Your task to perform on an android device: When is my next appointment? Image 0: 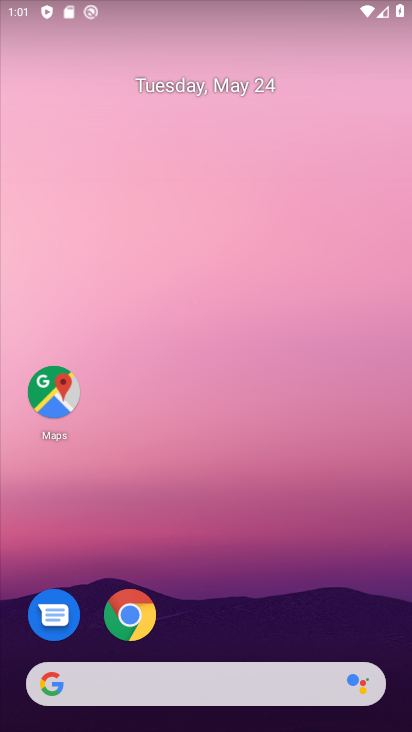
Step 0: drag from (215, 632) to (216, 98)
Your task to perform on an android device: When is my next appointment? Image 1: 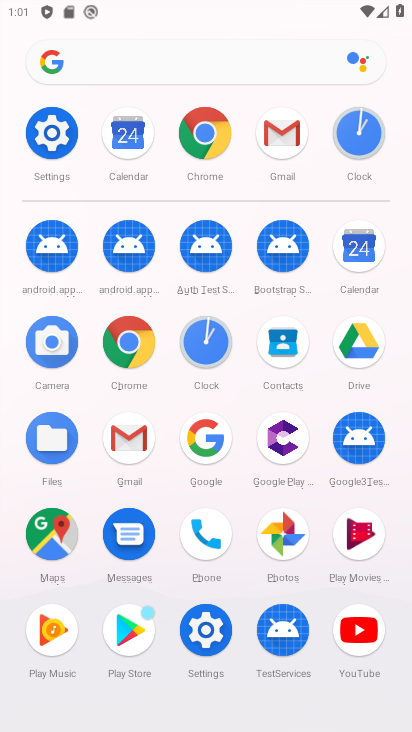
Step 1: click (357, 246)
Your task to perform on an android device: When is my next appointment? Image 2: 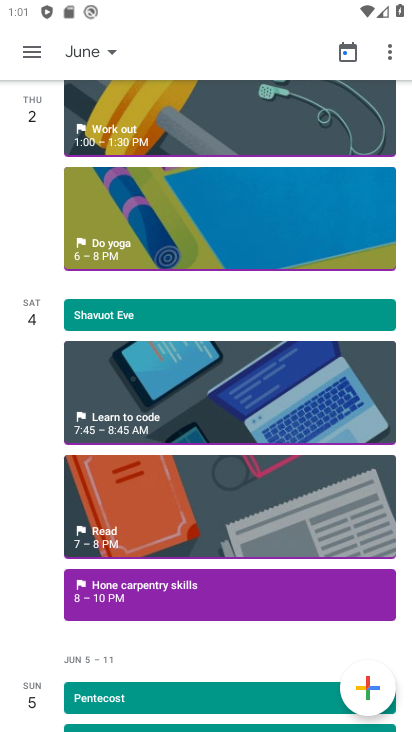
Step 2: click (32, 51)
Your task to perform on an android device: When is my next appointment? Image 3: 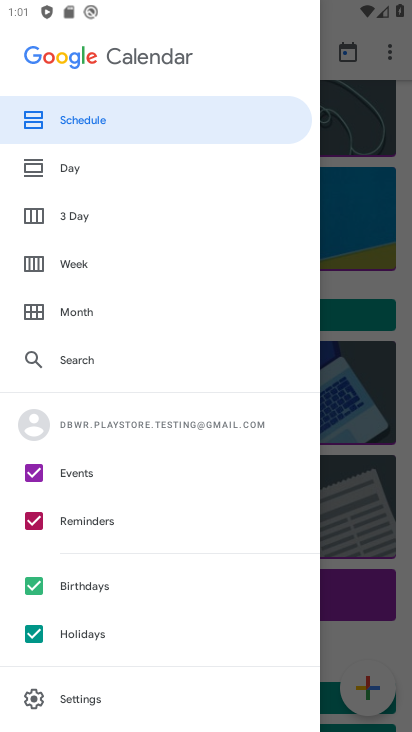
Step 3: click (95, 258)
Your task to perform on an android device: When is my next appointment? Image 4: 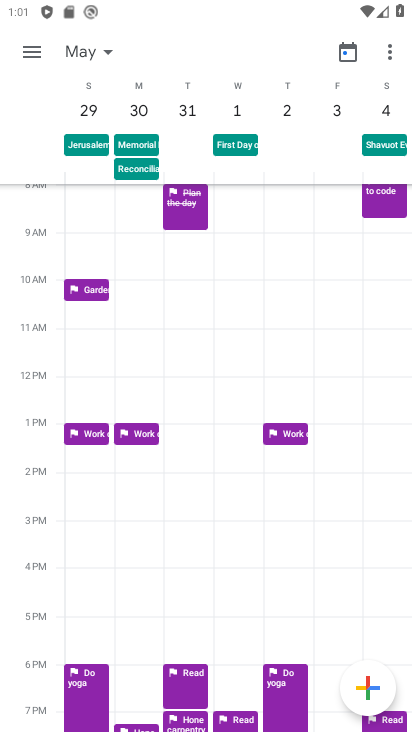
Step 4: drag from (87, 101) to (404, 105)
Your task to perform on an android device: When is my next appointment? Image 5: 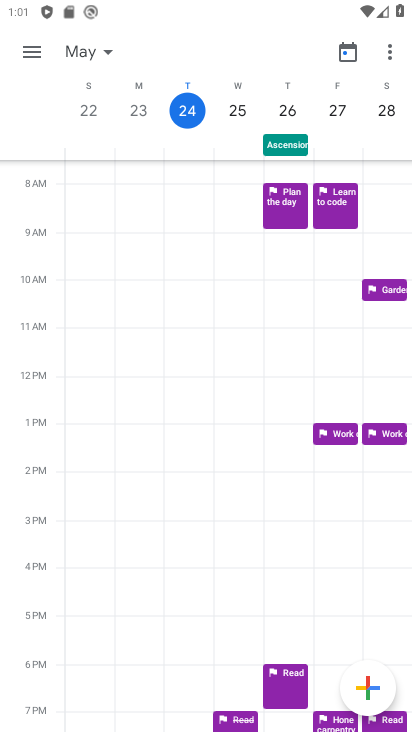
Step 5: click (181, 107)
Your task to perform on an android device: When is my next appointment? Image 6: 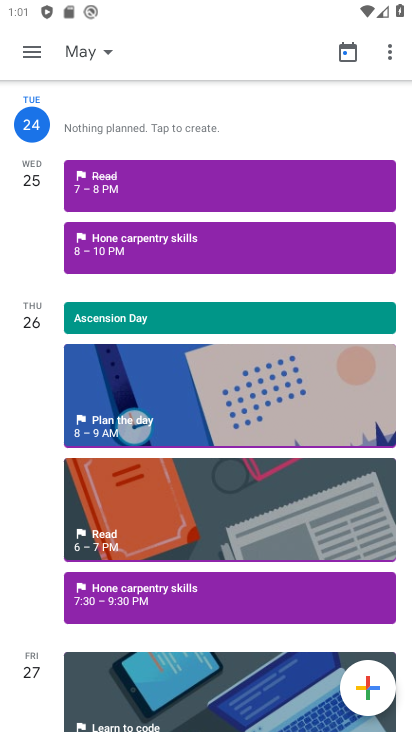
Step 6: task complete